Your task to perform on an android device: Open wifi settings Image 0: 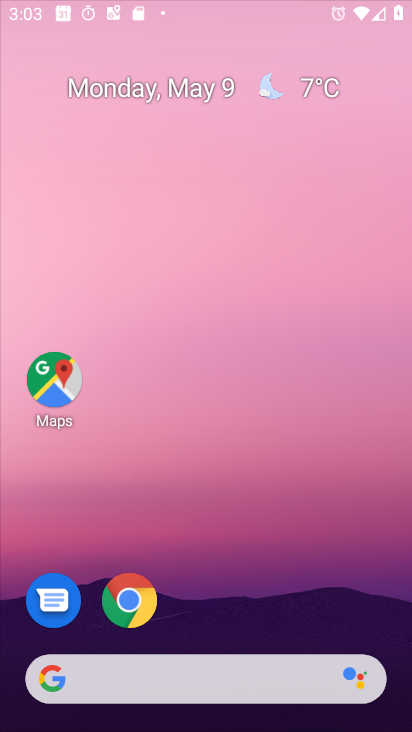
Step 0: drag from (203, 692) to (247, 242)
Your task to perform on an android device: Open wifi settings Image 1: 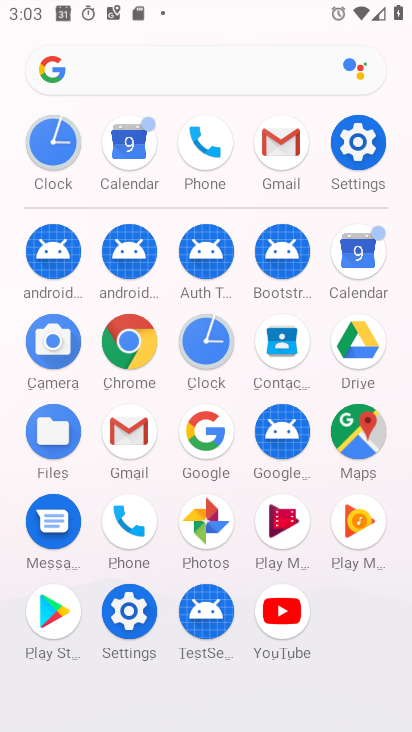
Step 1: click (370, 142)
Your task to perform on an android device: Open wifi settings Image 2: 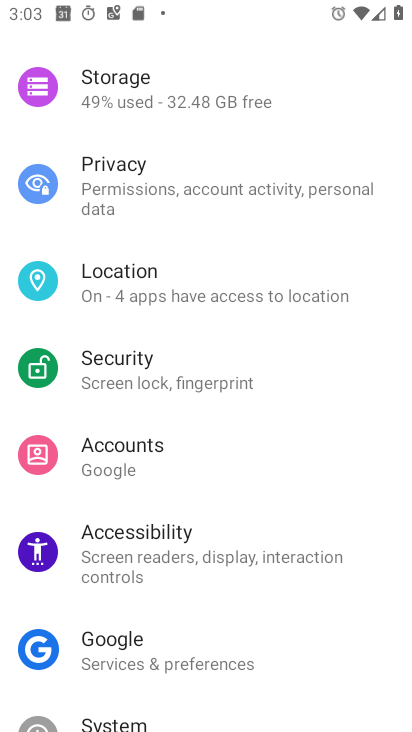
Step 2: drag from (219, 101) to (214, 465)
Your task to perform on an android device: Open wifi settings Image 3: 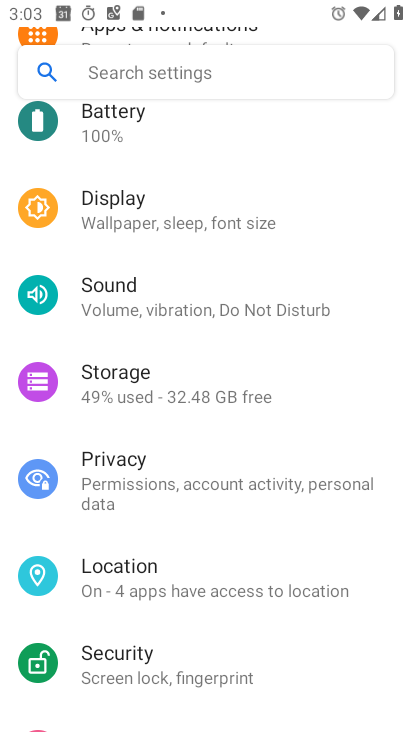
Step 3: drag from (181, 137) to (172, 707)
Your task to perform on an android device: Open wifi settings Image 4: 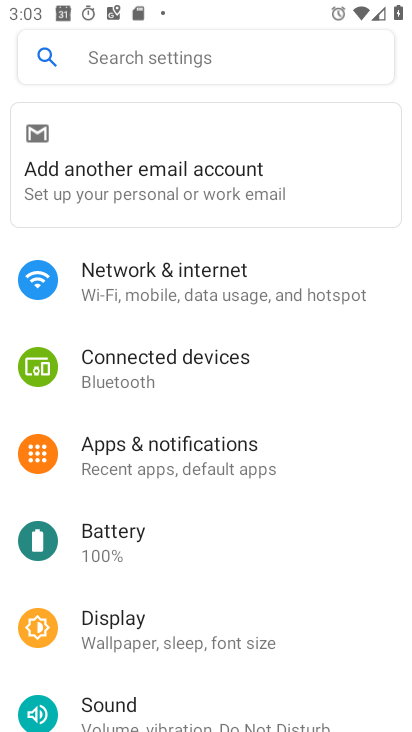
Step 4: click (150, 289)
Your task to perform on an android device: Open wifi settings Image 5: 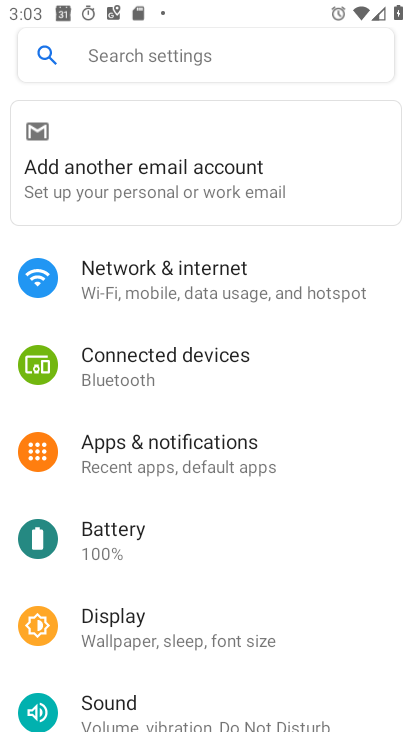
Step 5: click (155, 277)
Your task to perform on an android device: Open wifi settings Image 6: 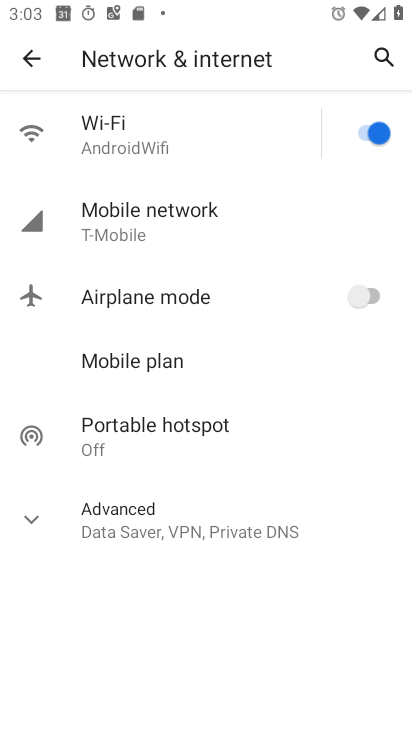
Step 6: click (170, 158)
Your task to perform on an android device: Open wifi settings Image 7: 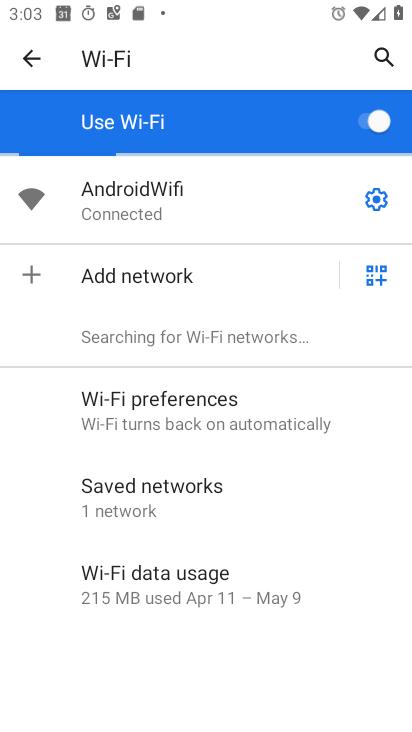
Step 7: task complete